Your task to perform on an android device: create a new album in the google photos Image 0: 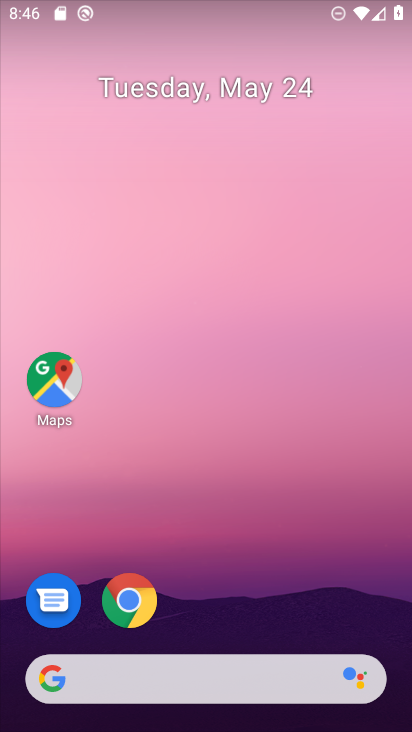
Step 0: drag from (209, 625) to (290, 3)
Your task to perform on an android device: create a new album in the google photos Image 1: 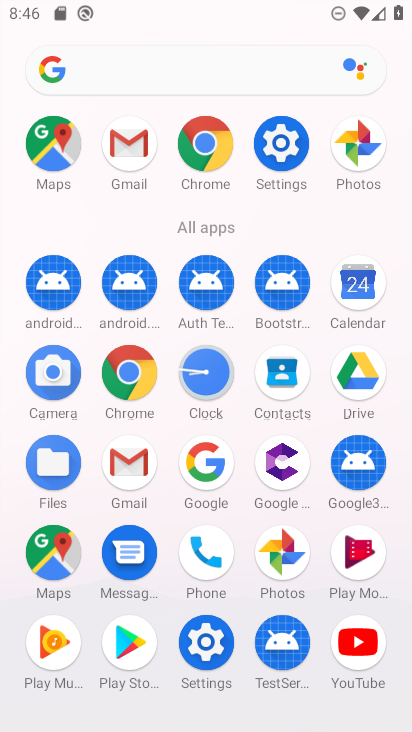
Step 1: click (365, 135)
Your task to perform on an android device: create a new album in the google photos Image 2: 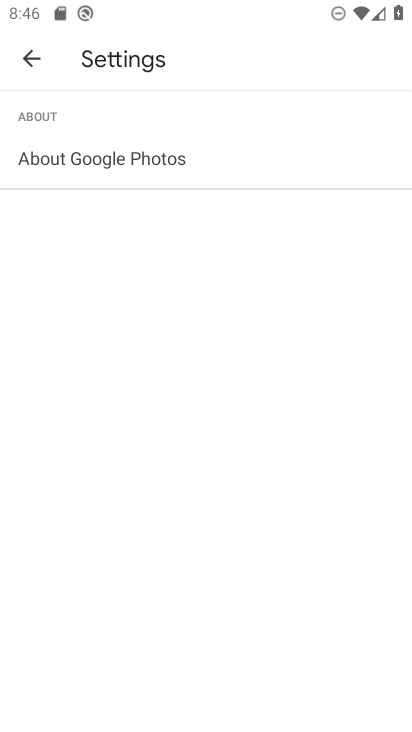
Step 2: click (42, 60)
Your task to perform on an android device: create a new album in the google photos Image 3: 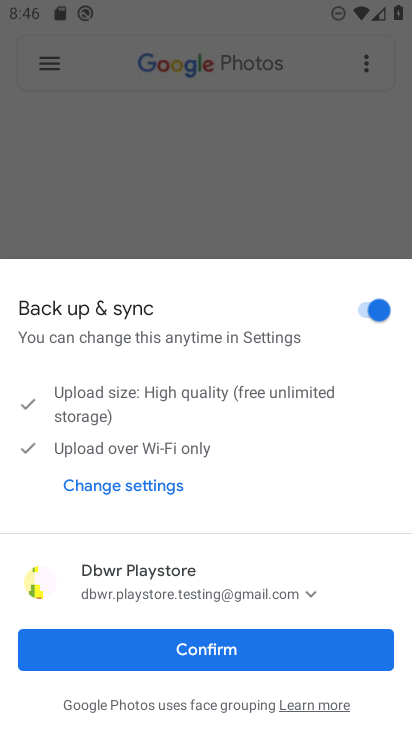
Step 3: click (141, 662)
Your task to perform on an android device: create a new album in the google photos Image 4: 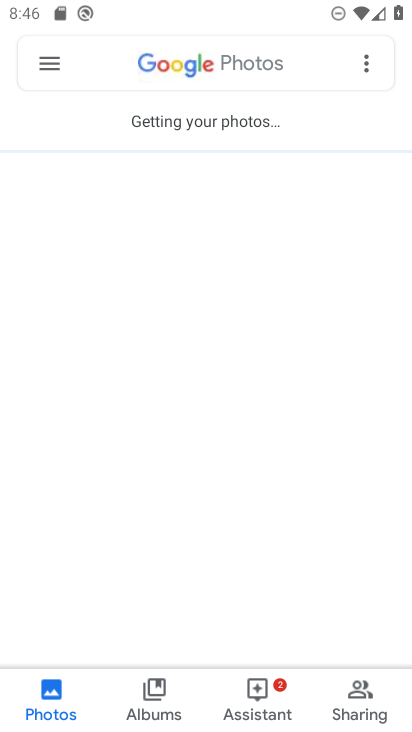
Step 4: click (141, 662)
Your task to perform on an android device: create a new album in the google photos Image 5: 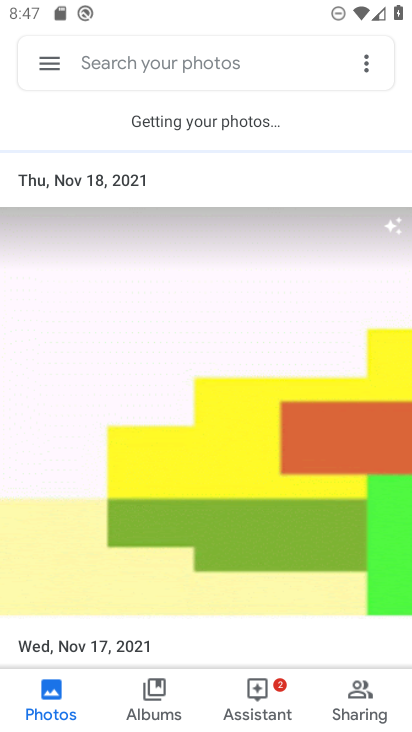
Step 5: click (165, 183)
Your task to perform on an android device: create a new album in the google photos Image 6: 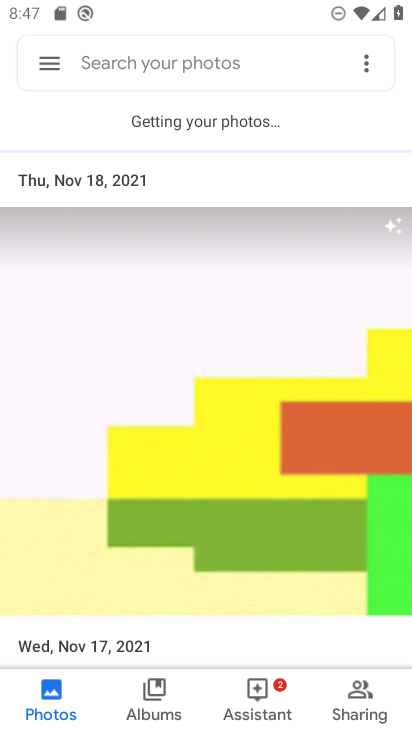
Step 6: drag from (216, 595) to (225, 184)
Your task to perform on an android device: create a new album in the google photos Image 7: 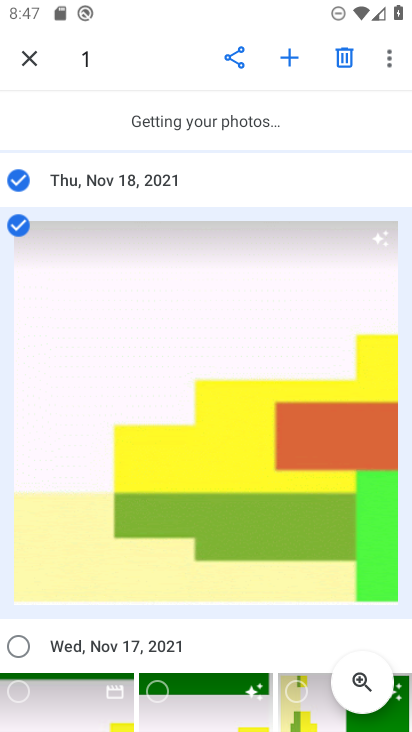
Step 7: click (225, 184)
Your task to perform on an android device: create a new album in the google photos Image 8: 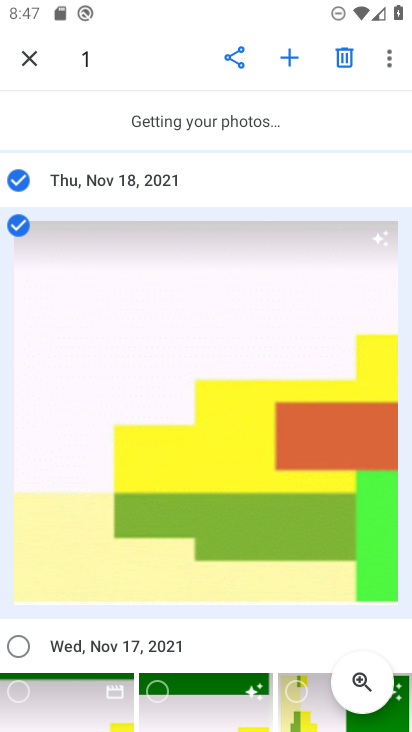
Step 8: click (225, 184)
Your task to perform on an android device: create a new album in the google photos Image 9: 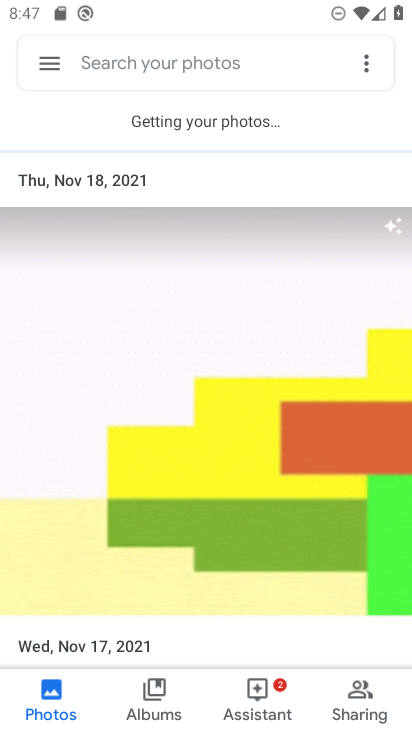
Step 9: drag from (161, 520) to (172, 83)
Your task to perform on an android device: create a new album in the google photos Image 10: 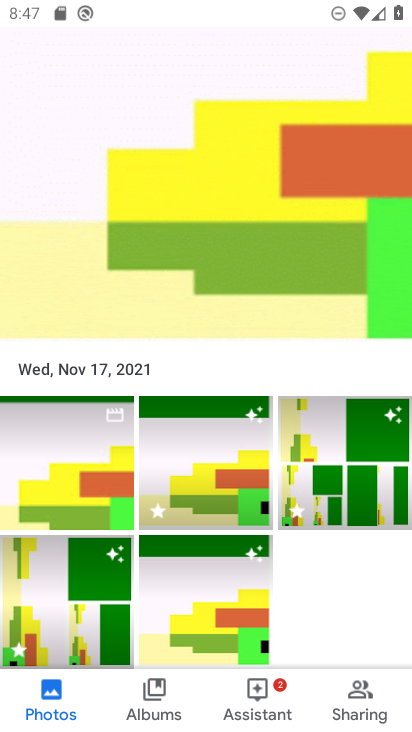
Step 10: click (168, 382)
Your task to perform on an android device: create a new album in the google photos Image 11: 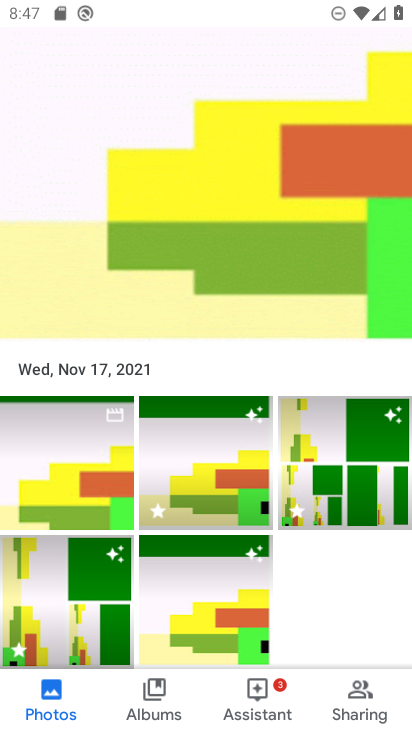
Step 11: click (161, 367)
Your task to perform on an android device: create a new album in the google photos Image 12: 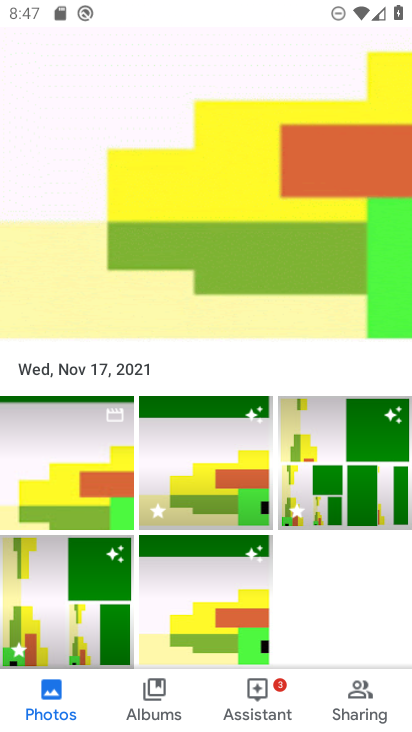
Step 12: click (98, 367)
Your task to perform on an android device: create a new album in the google photos Image 13: 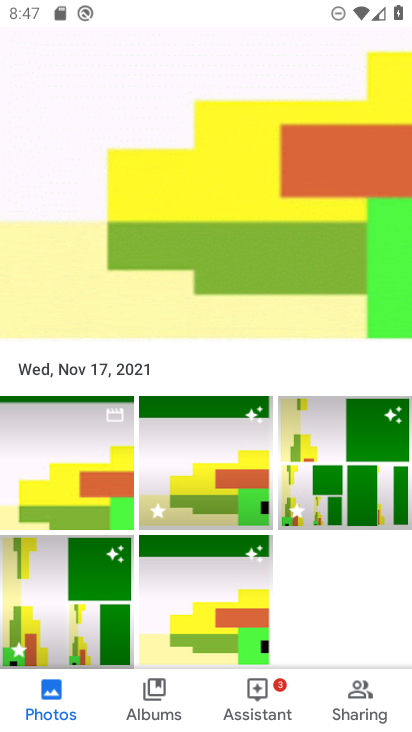
Step 13: click (98, 367)
Your task to perform on an android device: create a new album in the google photos Image 14: 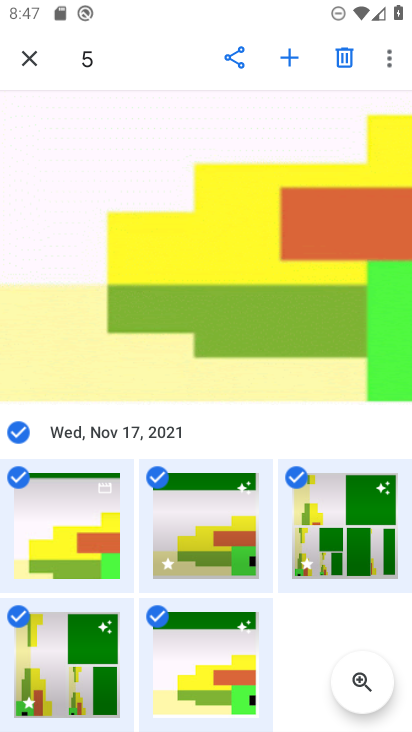
Step 14: click (290, 48)
Your task to perform on an android device: create a new album in the google photos Image 15: 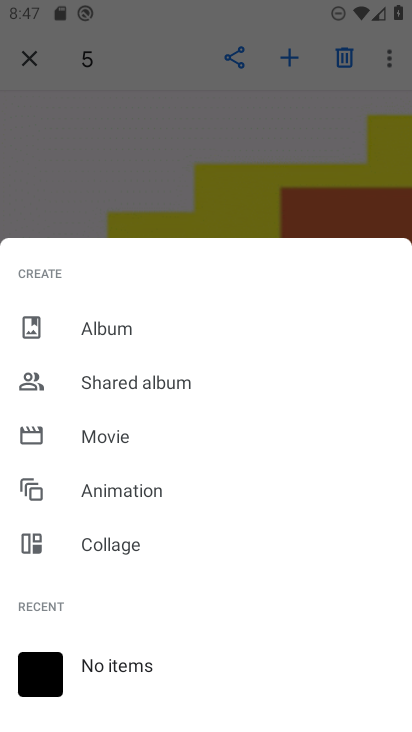
Step 15: click (129, 324)
Your task to perform on an android device: create a new album in the google photos Image 16: 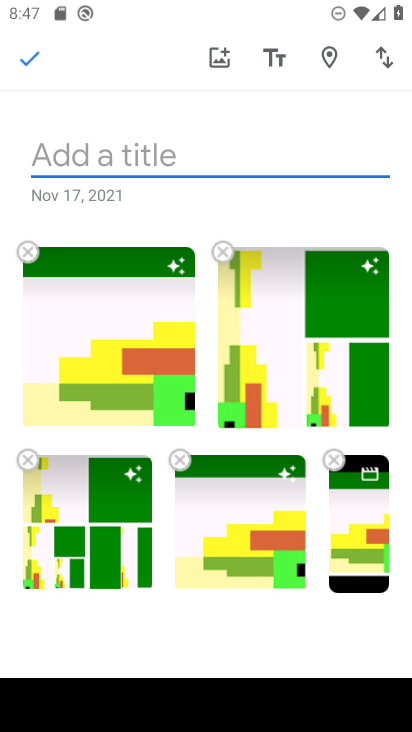
Step 16: type "hjk"
Your task to perform on an android device: create a new album in the google photos Image 17: 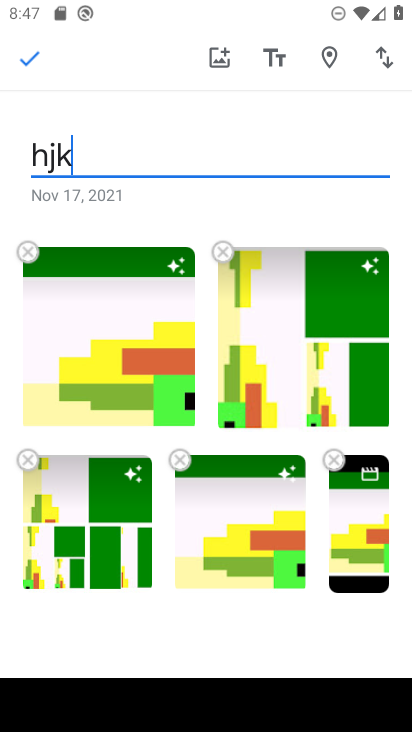
Step 17: click (30, 55)
Your task to perform on an android device: create a new album in the google photos Image 18: 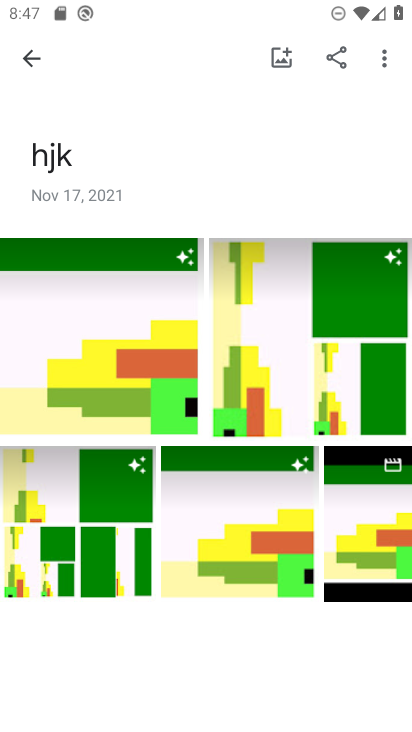
Step 18: task complete